Your task to perform on an android device: Open eBay Image 0: 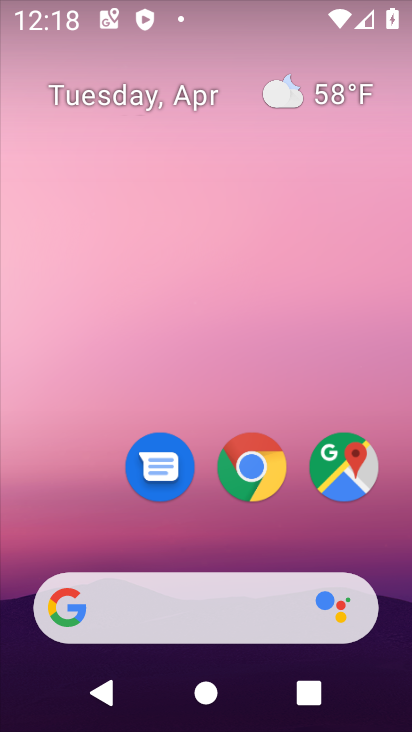
Step 0: click (242, 477)
Your task to perform on an android device: Open eBay Image 1: 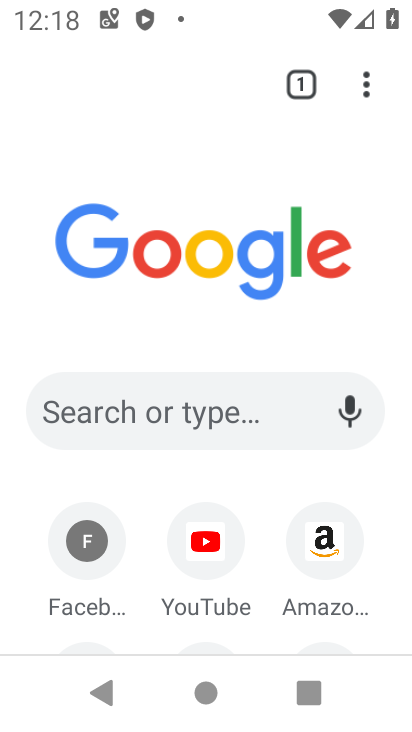
Step 1: drag from (147, 470) to (166, 4)
Your task to perform on an android device: Open eBay Image 2: 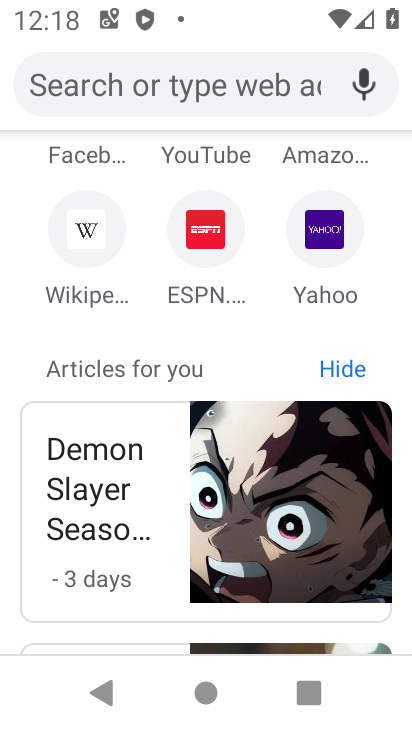
Step 2: click (200, 107)
Your task to perform on an android device: Open eBay Image 3: 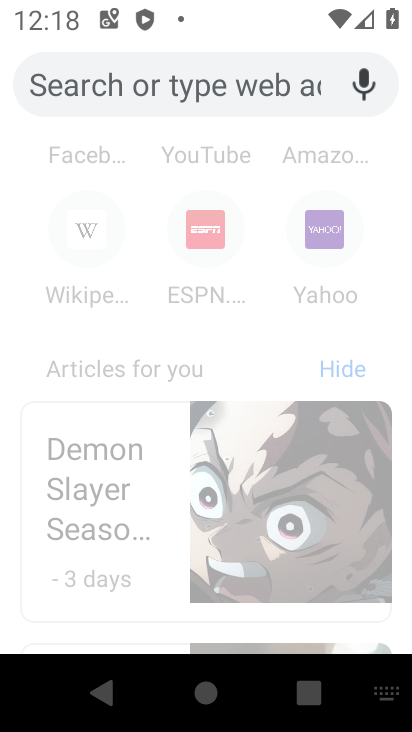
Step 3: type "ebay"
Your task to perform on an android device: Open eBay Image 4: 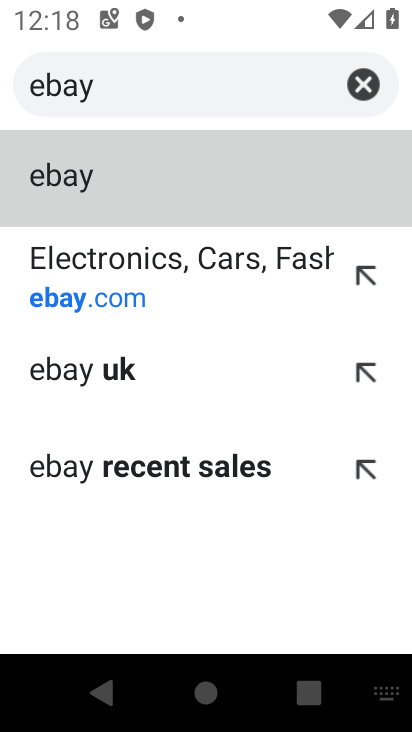
Step 4: task complete